Your task to perform on an android device: Open Chrome and go to the settings page Image 0: 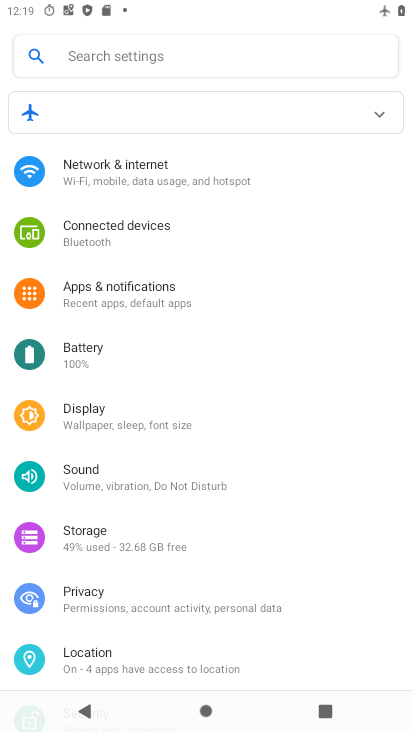
Step 0: press home button
Your task to perform on an android device: Open Chrome and go to the settings page Image 1: 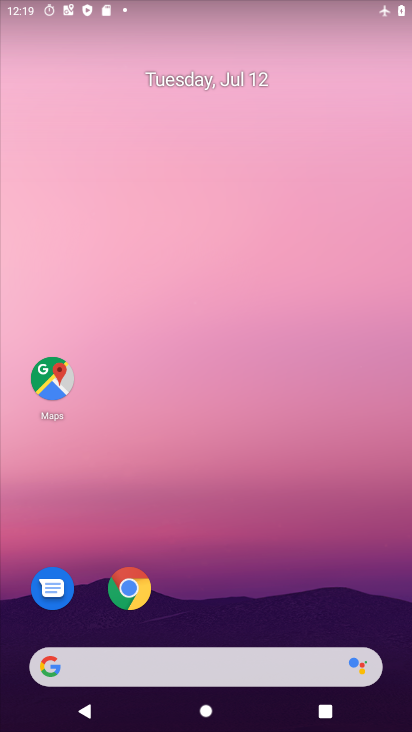
Step 1: click (129, 590)
Your task to perform on an android device: Open Chrome and go to the settings page Image 2: 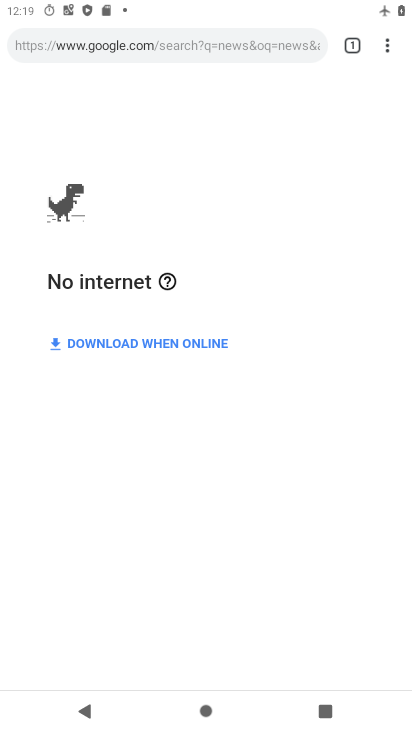
Step 2: task complete